Your task to perform on an android device: Show me productivity apps on the Play Store Image 0: 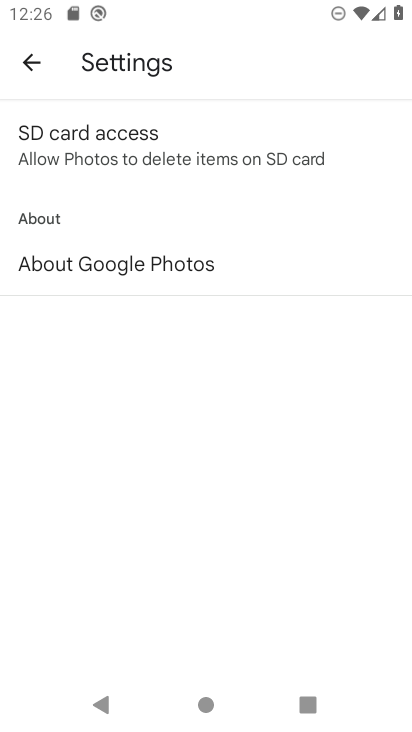
Step 0: click (25, 62)
Your task to perform on an android device: Show me productivity apps on the Play Store Image 1: 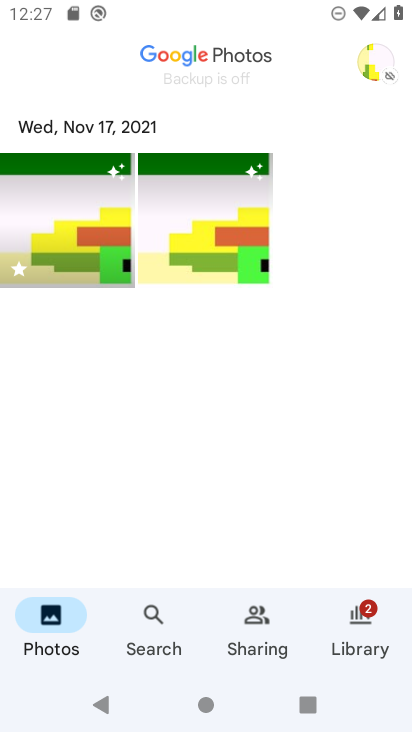
Step 1: press home button
Your task to perform on an android device: Show me productivity apps on the Play Store Image 2: 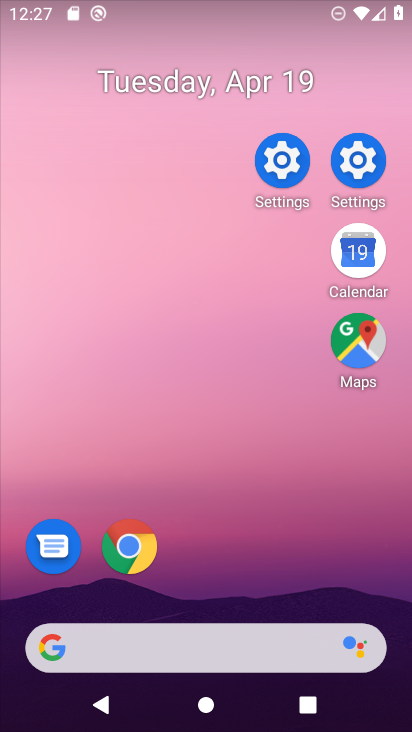
Step 2: drag from (302, 444) to (235, 304)
Your task to perform on an android device: Show me productivity apps on the Play Store Image 3: 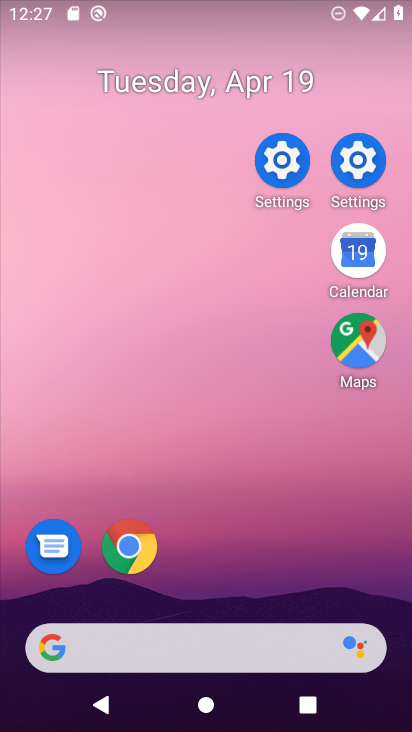
Step 3: drag from (232, 379) to (152, 192)
Your task to perform on an android device: Show me productivity apps on the Play Store Image 4: 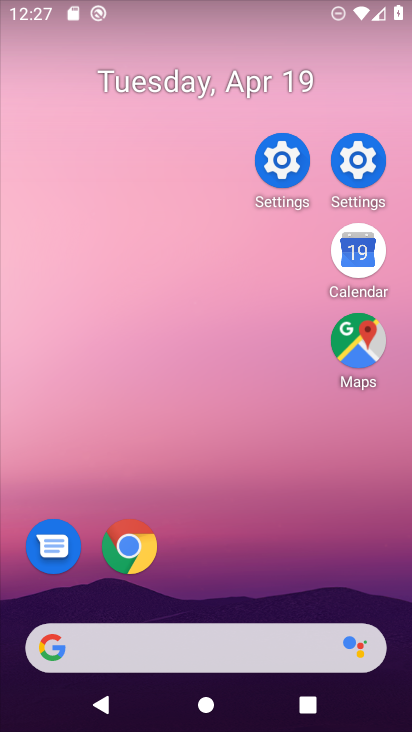
Step 4: drag from (238, 366) to (198, 184)
Your task to perform on an android device: Show me productivity apps on the Play Store Image 5: 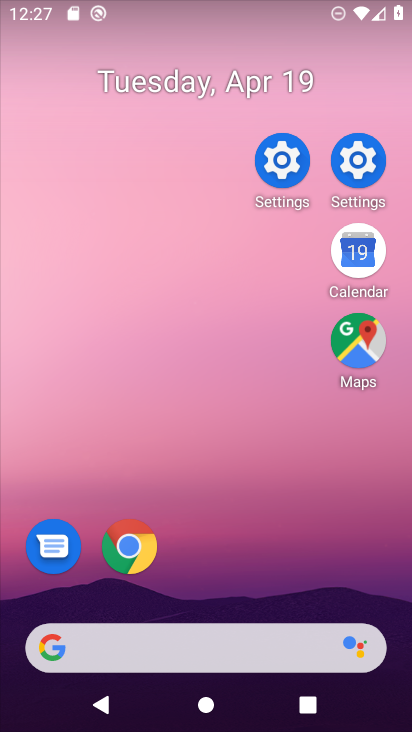
Step 5: drag from (283, 517) to (201, 97)
Your task to perform on an android device: Show me productivity apps on the Play Store Image 6: 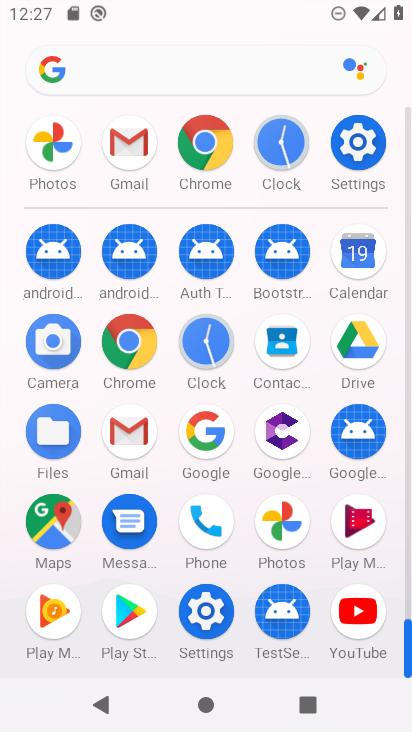
Step 6: click (134, 619)
Your task to perform on an android device: Show me productivity apps on the Play Store Image 7: 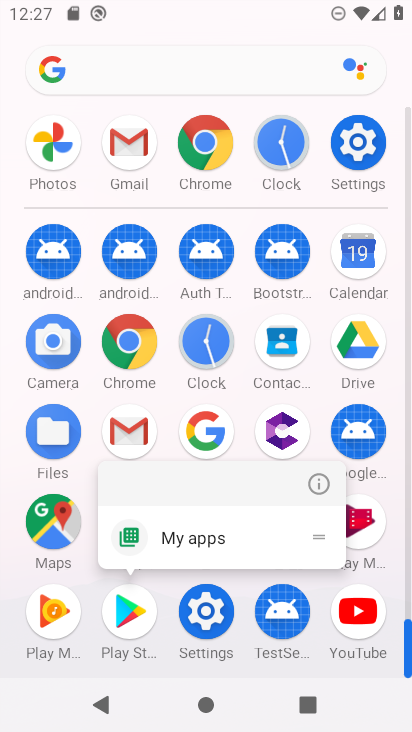
Step 7: click (136, 617)
Your task to perform on an android device: Show me productivity apps on the Play Store Image 8: 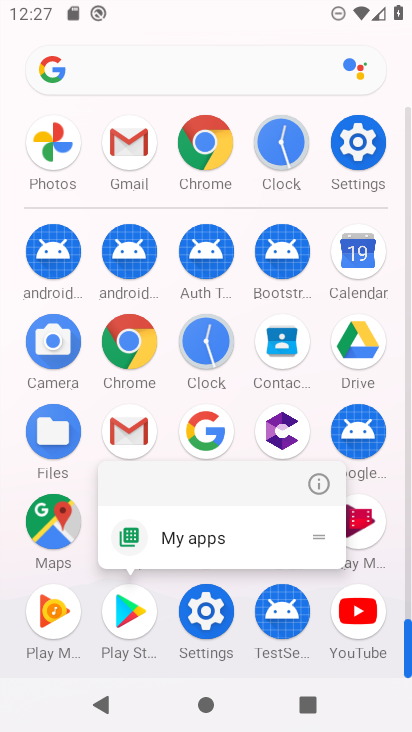
Step 8: click (141, 597)
Your task to perform on an android device: Show me productivity apps on the Play Store Image 9: 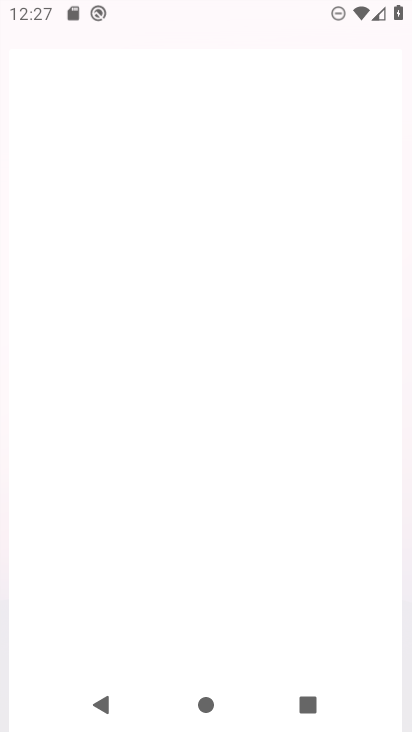
Step 9: click (149, 596)
Your task to perform on an android device: Show me productivity apps on the Play Store Image 10: 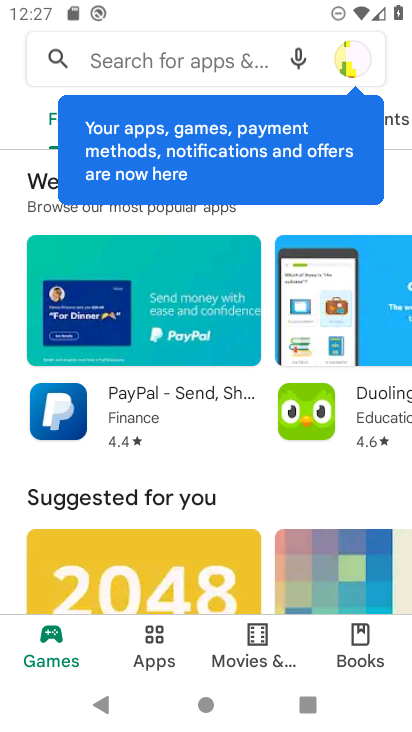
Step 10: click (105, 52)
Your task to perform on an android device: Show me productivity apps on the Play Store Image 11: 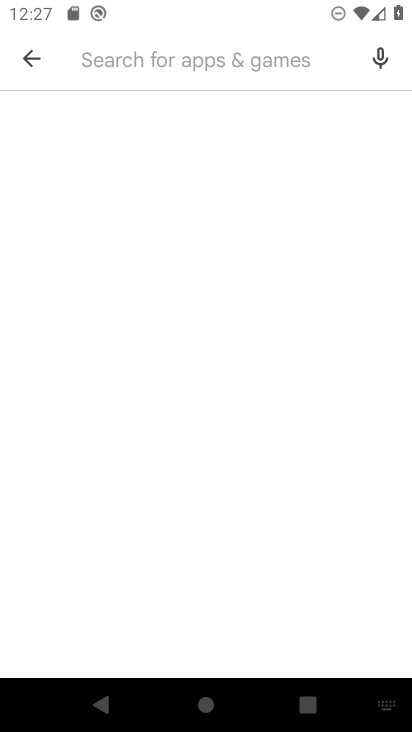
Step 11: type "produtivity apps"
Your task to perform on an android device: Show me productivity apps on the Play Store Image 12: 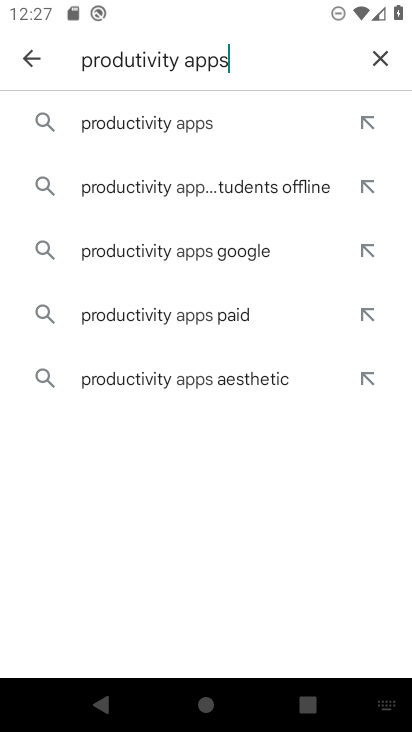
Step 12: click (171, 130)
Your task to perform on an android device: Show me productivity apps on the Play Store Image 13: 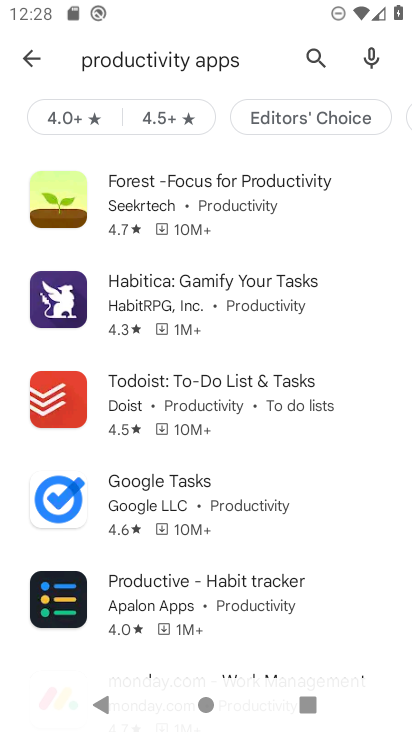
Step 13: task complete